Your task to perform on an android device: toggle notifications settings in the gmail app Image 0: 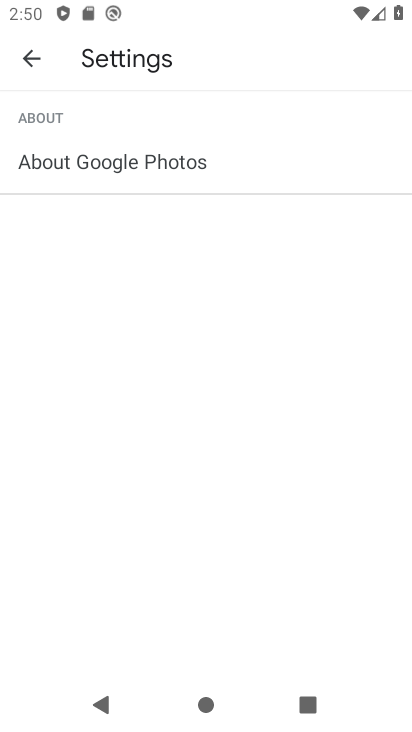
Step 0: press home button
Your task to perform on an android device: toggle notifications settings in the gmail app Image 1: 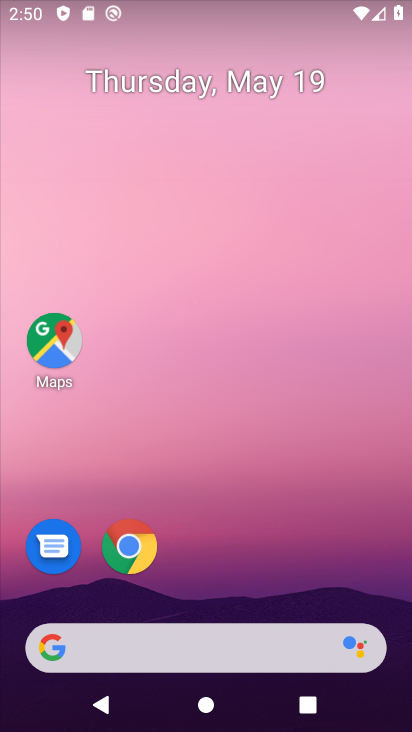
Step 1: drag from (244, 586) to (253, 299)
Your task to perform on an android device: toggle notifications settings in the gmail app Image 2: 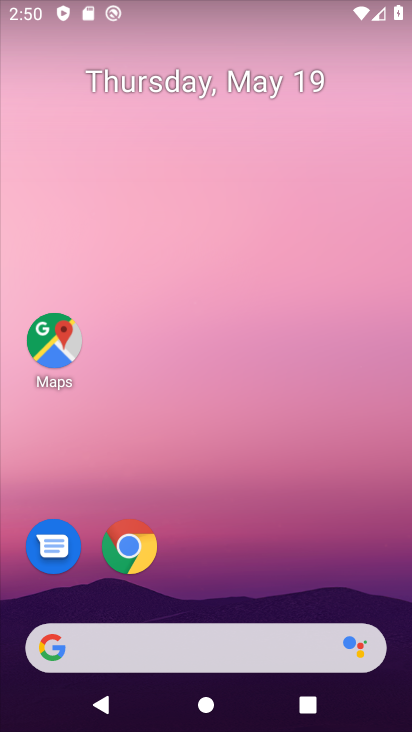
Step 2: drag from (210, 593) to (270, 11)
Your task to perform on an android device: toggle notifications settings in the gmail app Image 3: 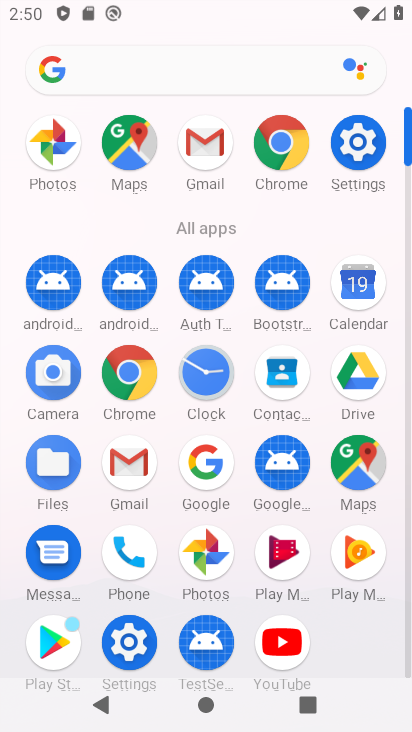
Step 3: click (142, 470)
Your task to perform on an android device: toggle notifications settings in the gmail app Image 4: 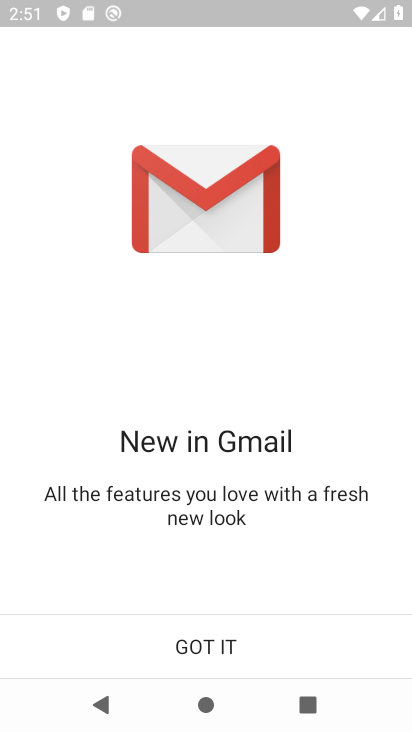
Step 4: click (230, 663)
Your task to perform on an android device: toggle notifications settings in the gmail app Image 5: 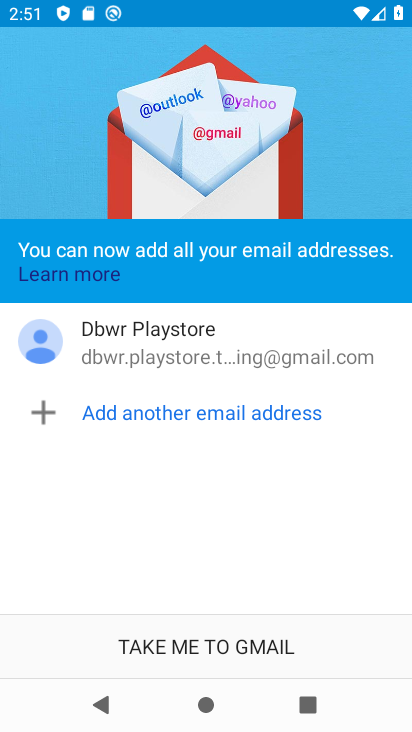
Step 5: click (234, 649)
Your task to perform on an android device: toggle notifications settings in the gmail app Image 6: 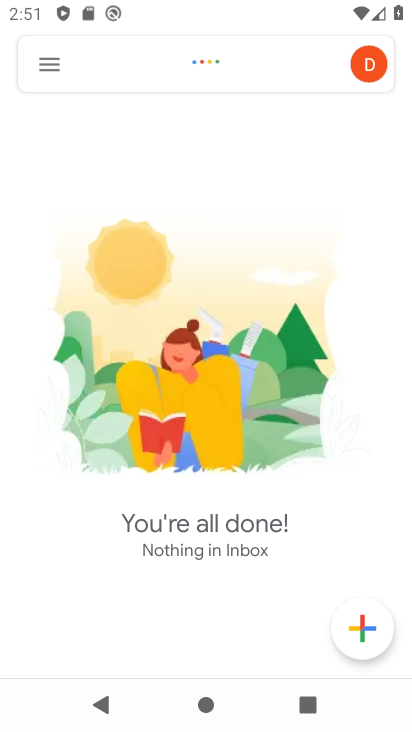
Step 6: click (49, 64)
Your task to perform on an android device: toggle notifications settings in the gmail app Image 7: 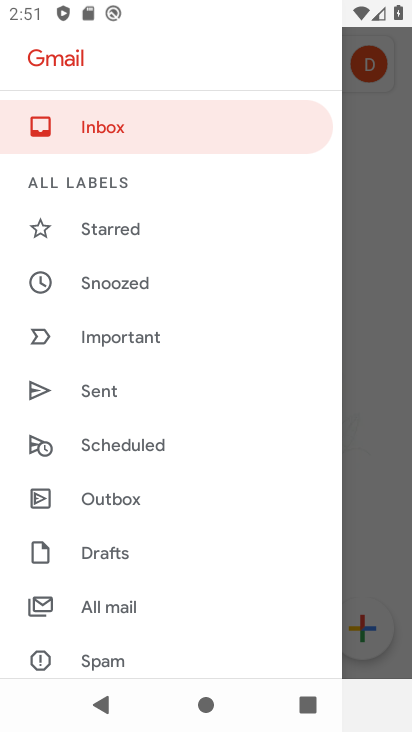
Step 7: drag from (148, 525) to (143, 355)
Your task to perform on an android device: toggle notifications settings in the gmail app Image 8: 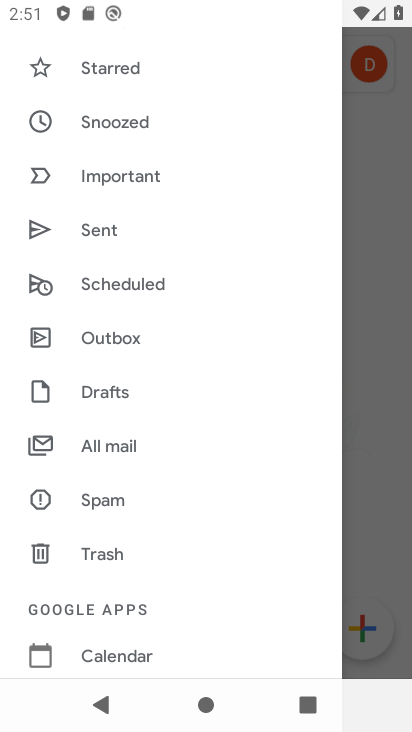
Step 8: drag from (118, 541) to (128, 359)
Your task to perform on an android device: toggle notifications settings in the gmail app Image 9: 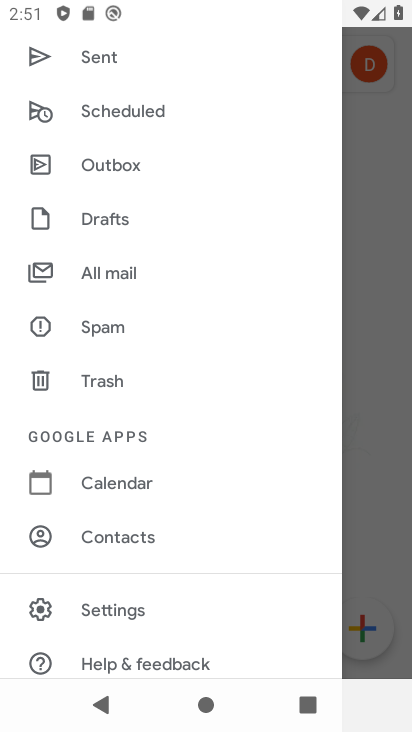
Step 9: drag from (115, 554) to (122, 493)
Your task to perform on an android device: toggle notifications settings in the gmail app Image 10: 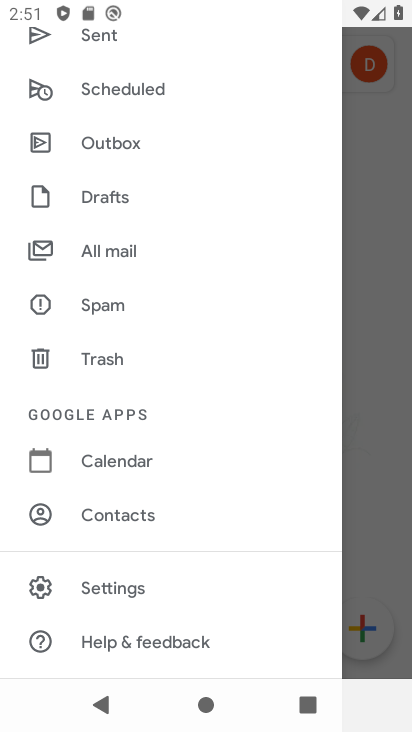
Step 10: click (133, 598)
Your task to perform on an android device: toggle notifications settings in the gmail app Image 11: 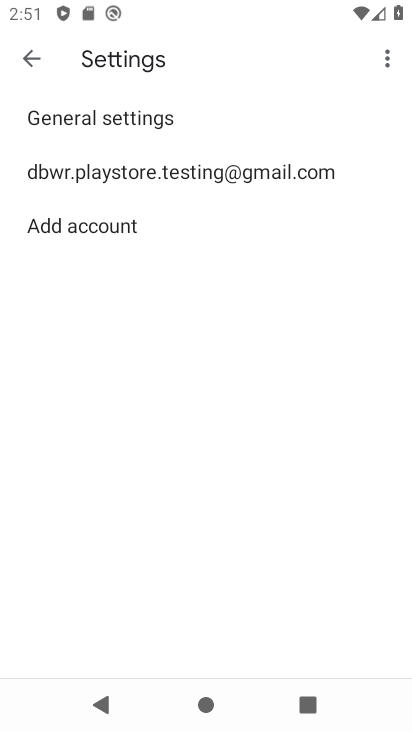
Step 11: click (147, 117)
Your task to perform on an android device: toggle notifications settings in the gmail app Image 12: 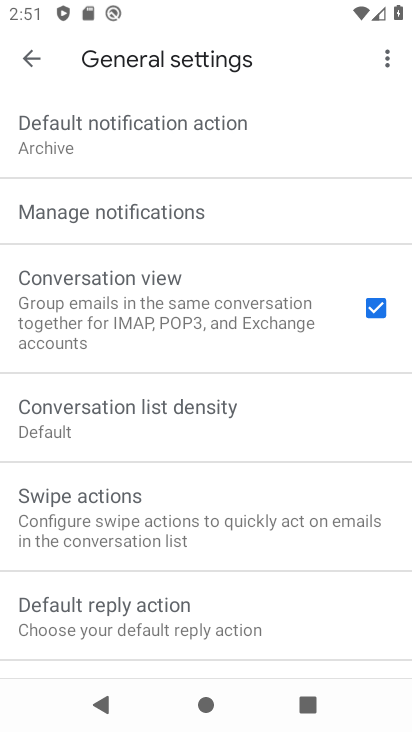
Step 12: click (153, 201)
Your task to perform on an android device: toggle notifications settings in the gmail app Image 13: 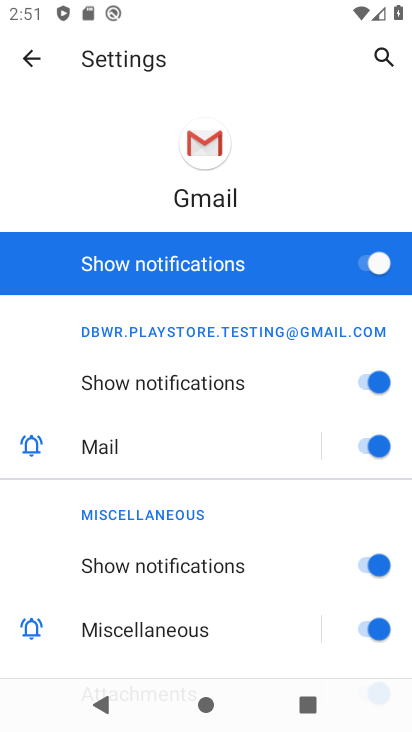
Step 13: click (358, 257)
Your task to perform on an android device: toggle notifications settings in the gmail app Image 14: 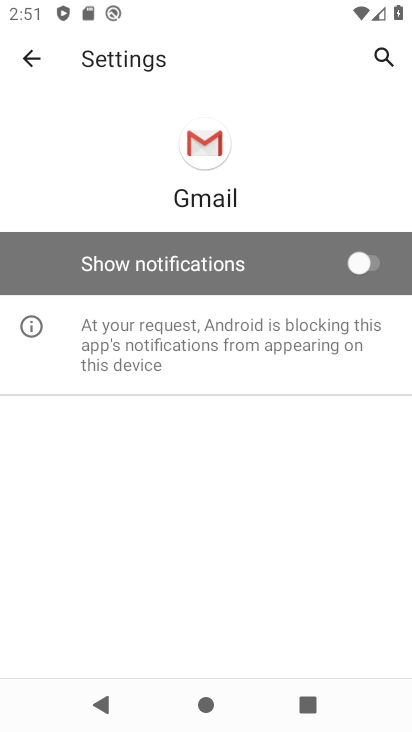
Step 14: task complete